Your task to perform on an android device: turn notification dots on Image 0: 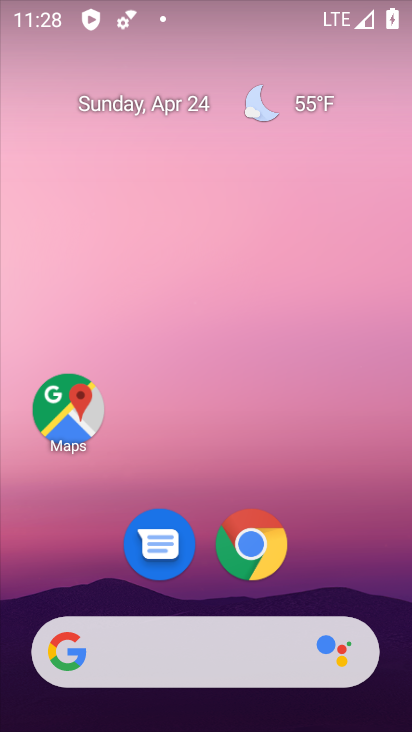
Step 0: drag from (310, 435) to (286, 53)
Your task to perform on an android device: turn notification dots on Image 1: 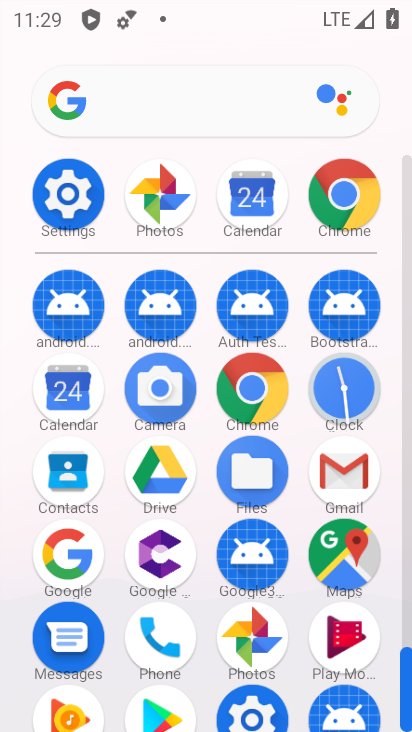
Step 1: click (71, 190)
Your task to perform on an android device: turn notification dots on Image 2: 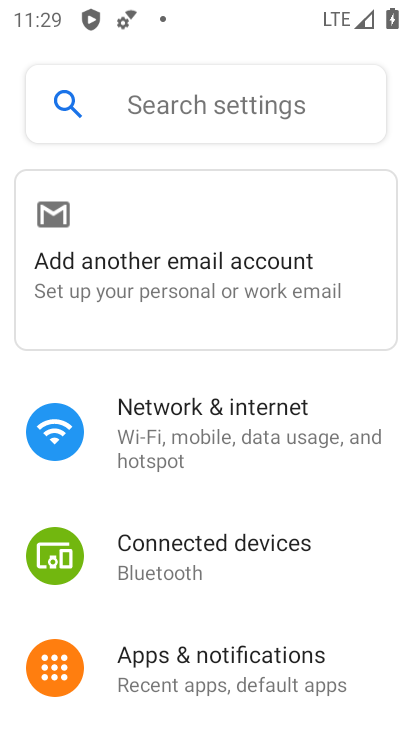
Step 2: click (227, 670)
Your task to perform on an android device: turn notification dots on Image 3: 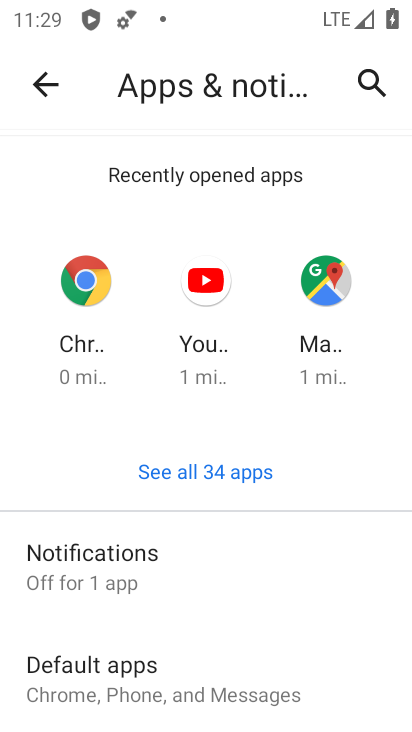
Step 3: click (95, 577)
Your task to perform on an android device: turn notification dots on Image 4: 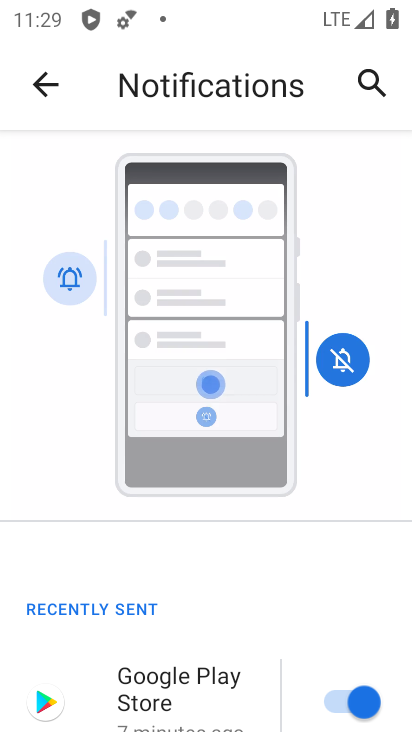
Step 4: drag from (177, 528) to (163, 204)
Your task to perform on an android device: turn notification dots on Image 5: 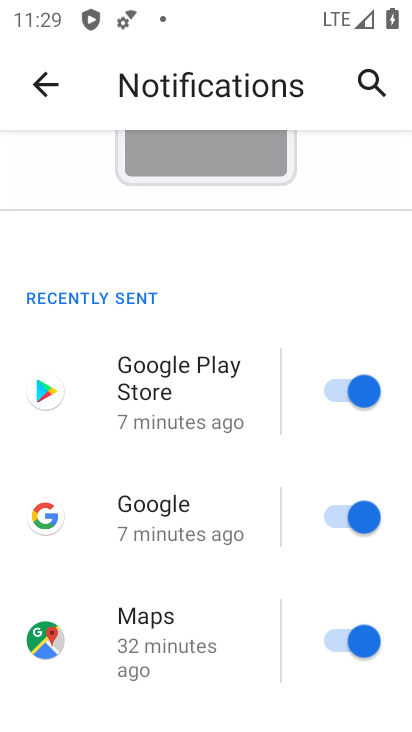
Step 5: drag from (124, 637) to (123, 185)
Your task to perform on an android device: turn notification dots on Image 6: 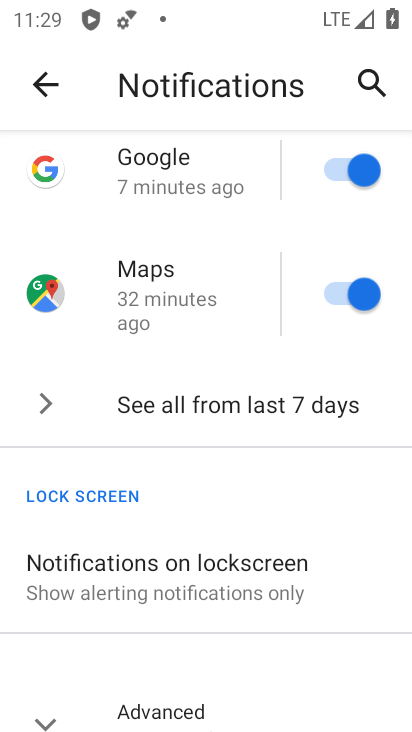
Step 6: drag from (126, 660) to (149, 285)
Your task to perform on an android device: turn notification dots on Image 7: 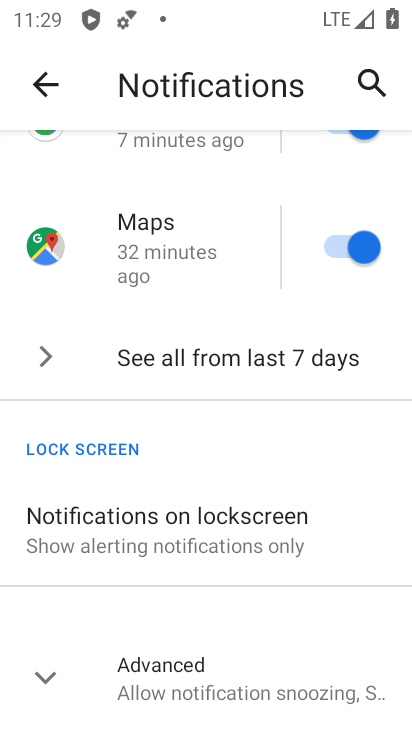
Step 7: click (170, 684)
Your task to perform on an android device: turn notification dots on Image 8: 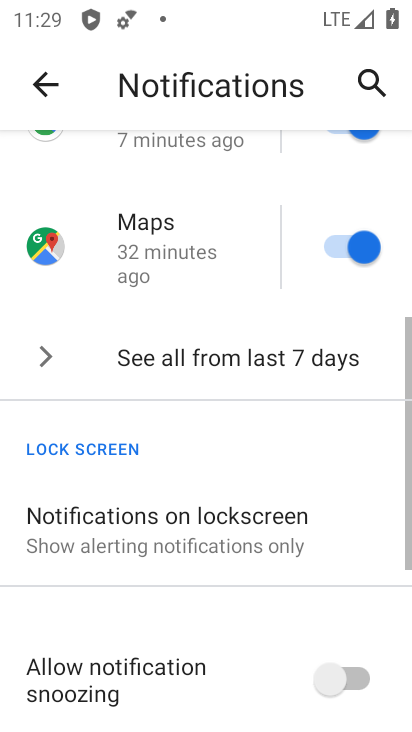
Step 8: drag from (156, 615) to (168, 249)
Your task to perform on an android device: turn notification dots on Image 9: 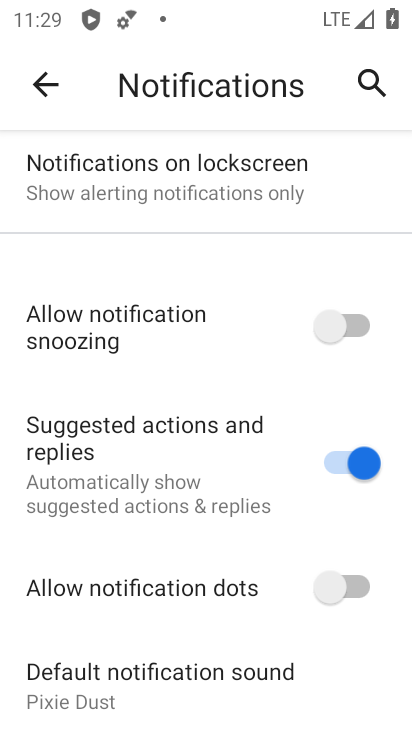
Step 9: drag from (168, 634) to (120, 222)
Your task to perform on an android device: turn notification dots on Image 10: 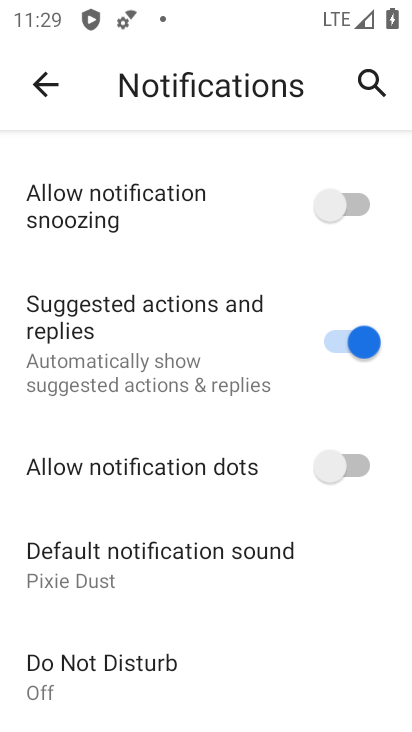
Step 10: click (354, 471)
Your task to perform on an android device: turn notification dots on Image 11: 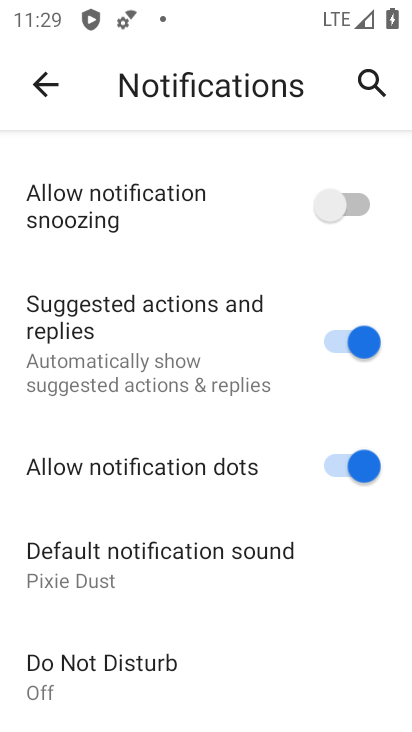
Step 11: task complete